Your task to perform on an android device: snooze an email in the gmail app Image 0: 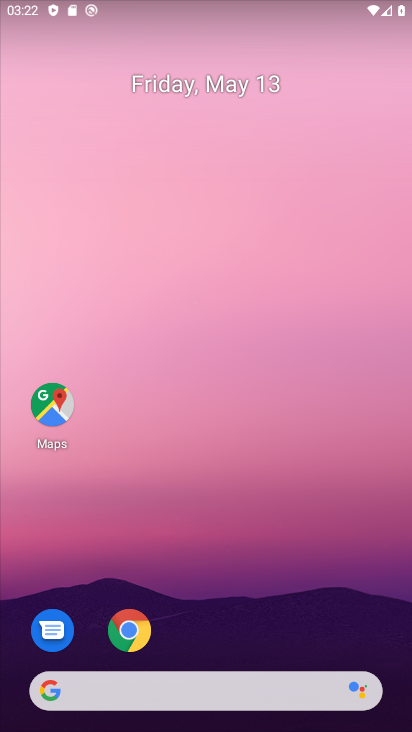
Step 0: drag from (205, 664) to (145, 46)
Your task to perform on an android device: snooze an email in the gmail app Image 1: 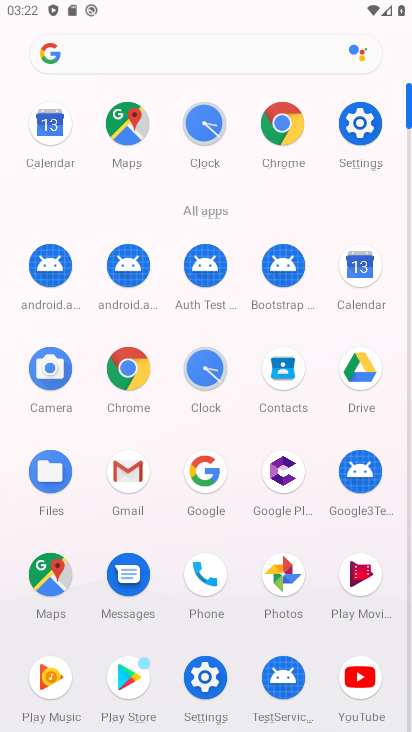
Step 1: click (139, 468)
Your task to perform on an android device: snooze an email in the gmail app Image 2: 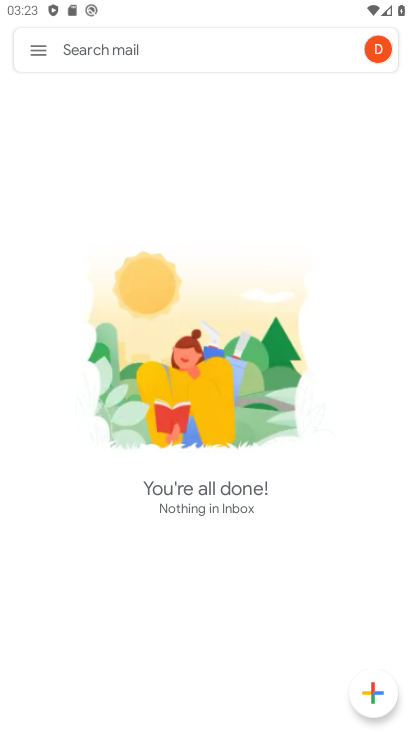
Step 2: click (27, 46)
Your task to perform on an android device: snooze an email in the gmail app Image 3: 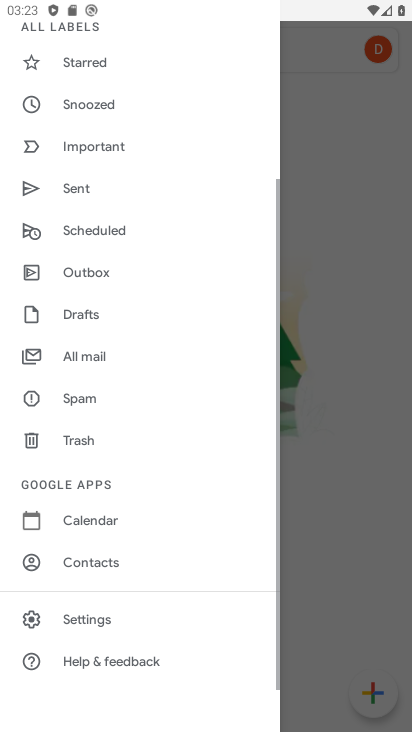
Step 3: click (116, 345)
Your task to perform on an android device: snooze an email in the gmail app Image 4: 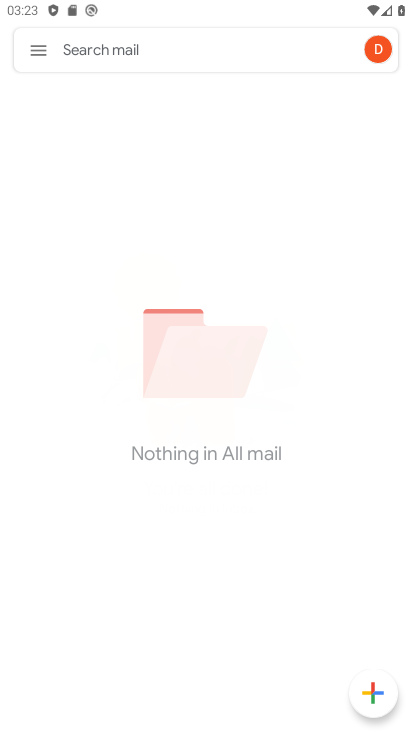
Step 4: task complete